Your task to perform on an android device: toggle translation in the chrome app Image 0: 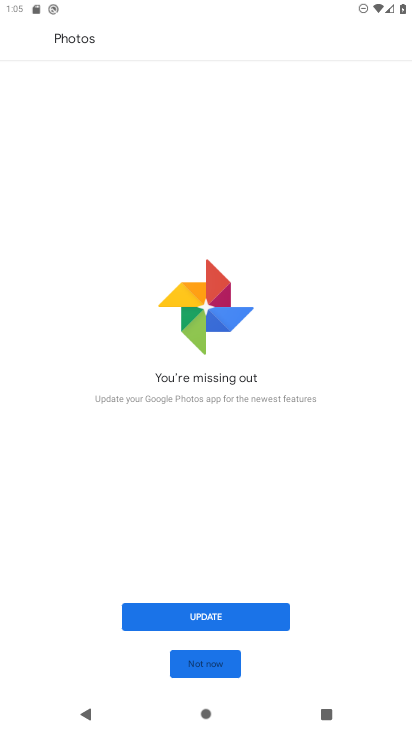
Step 0: press home button
Your task to perform on an android device: toggle translation in the chrome app Image 1: 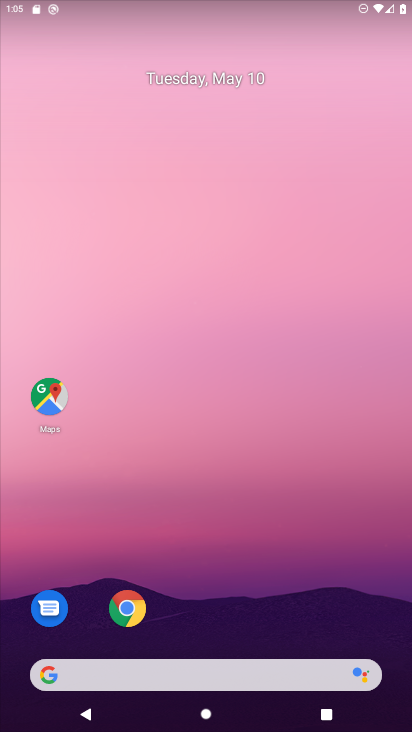
Step 1: drag from (313, 583) to (326, 169)
Your task to perform on an android device: toggle translation in the chrome app Image 2: 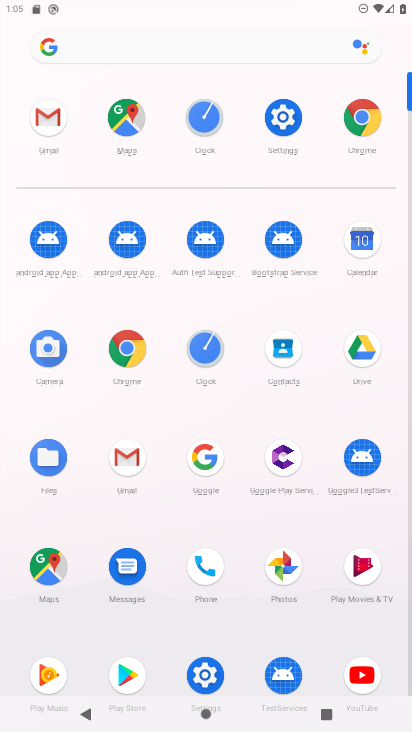
Step 2: click (119, 351)
Your task to perform on an android device: toggle translation in the chrome app Image 3: 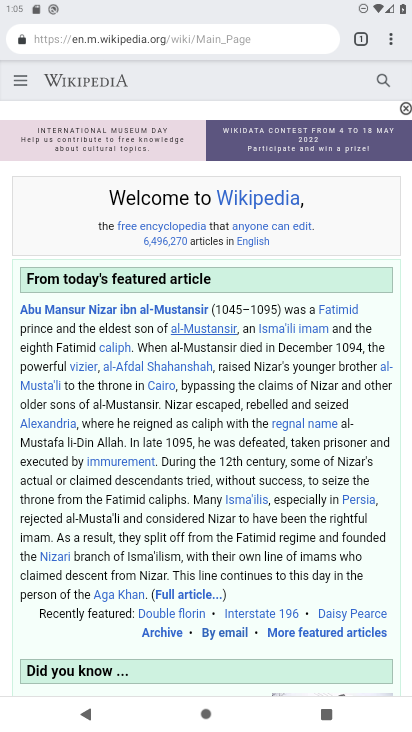
Step 3: click (203, 38)
Your task to perform on an android device: toggle translation in the chrome app Image 4: 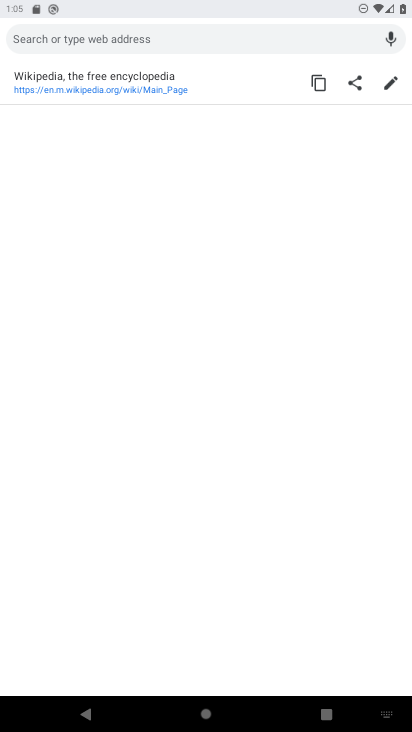
Step 4: press back button
Your task to perform on an android device: toggle translation in the chrome app Image 5: 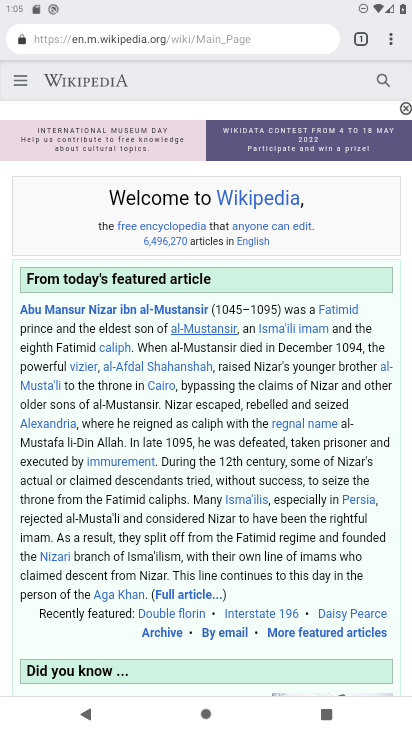
Step 5: drag from (391, 41) to (231, 468)
Your task to perform on an android device: toggle translation in the chrome app Image 6: 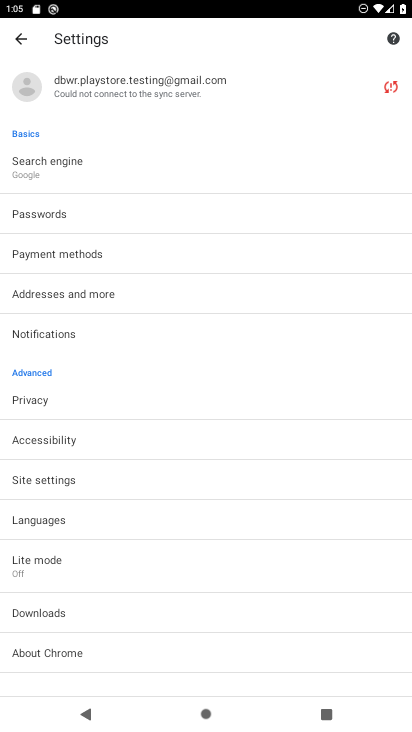
Step 6: drag from (184, 621) to (213, 302)
Your task to perform on an android device: toggle translation in the chrome app Image 7: 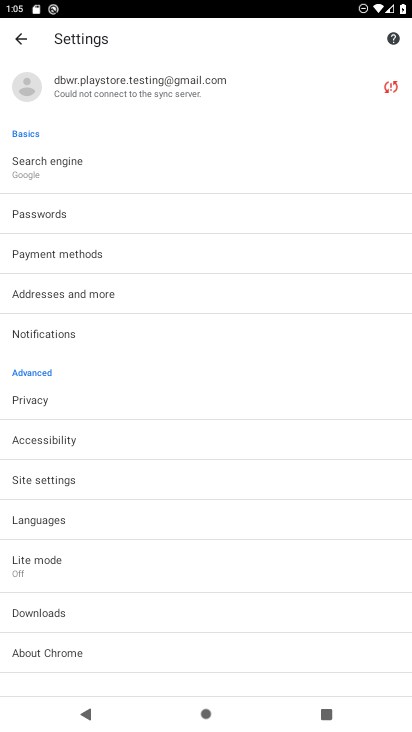
Step 7: drag from (164, 632) to (184, 298)
Your task to perform on an android device: toggle translation in the chrome app Image 8: 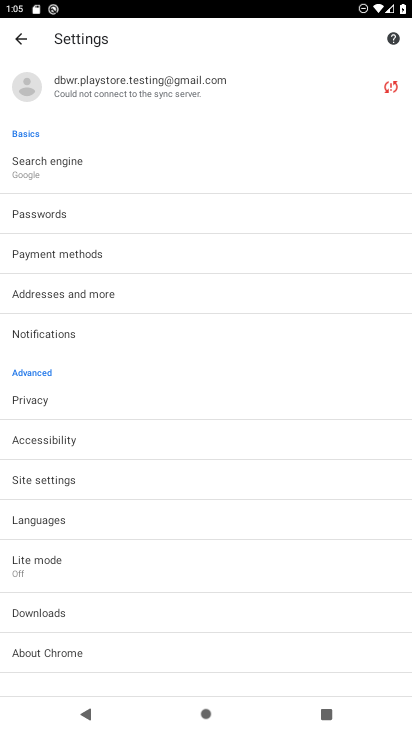
Step 8: click (90, 529)
Your task to perform on an android device: toggle translation in the chrome app Image 9: 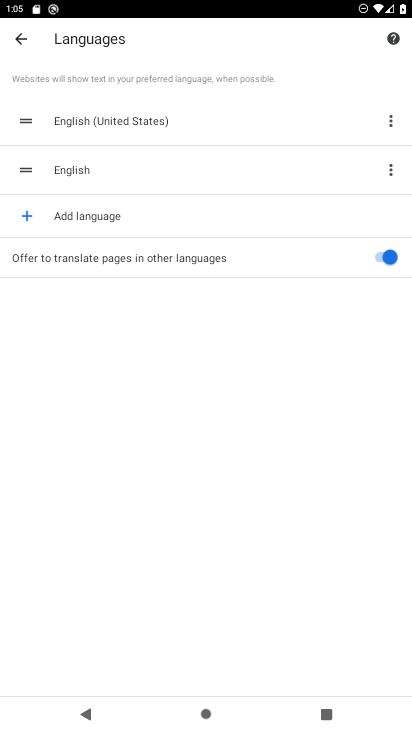
Step 9: click (386, 253)
Your task to perform on an android device: toggle translation in the chrome app Image 10: 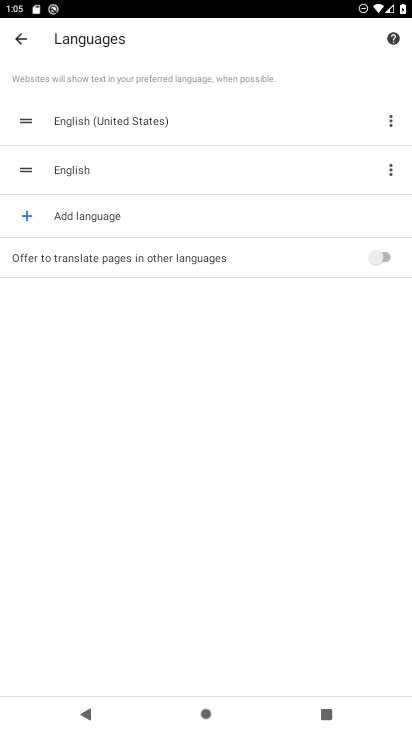
Step 10: task complete